Your task to perform on an android device: Go to display settings Image 0: 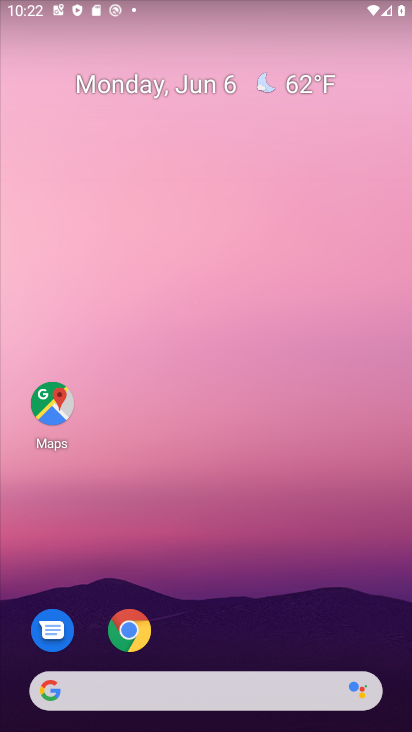
Step 0: drag from (358, 619) to (329, 169)
Your task to perform on an android device: Go to display settings Image 1: 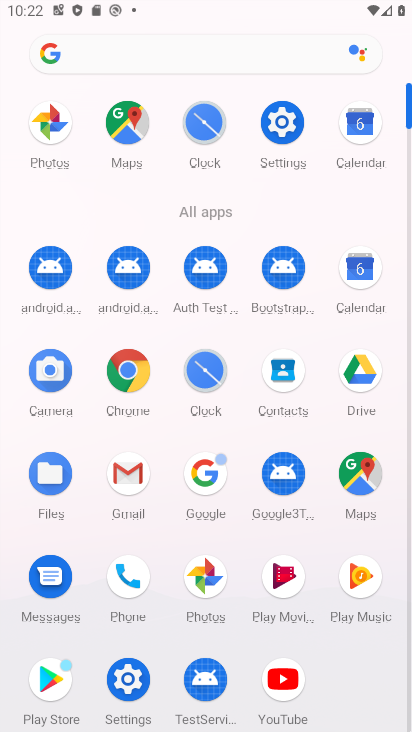
Step 1: click (120, 697)
Your task to perform on an android device: Go to display settings Image 2: 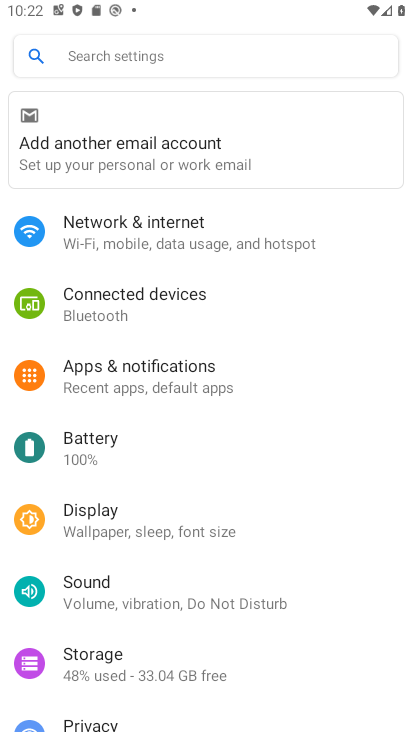
Step 2: click (120, 528)
Your task to perform on an android device: Go to display settings Image 3: 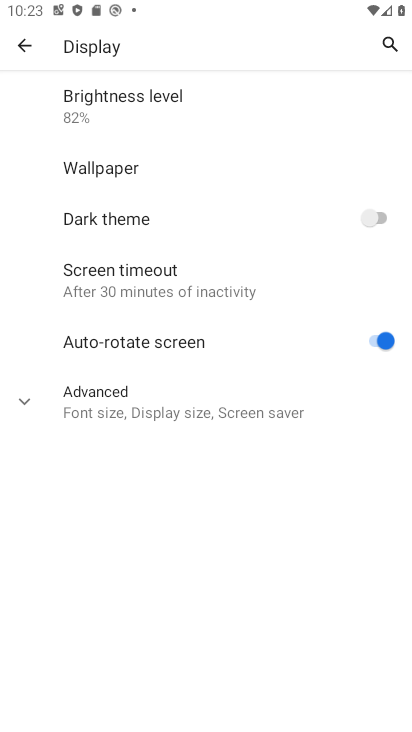
Step 3: task complete